Your task to perform on an android device: Open Amazon Image 0: 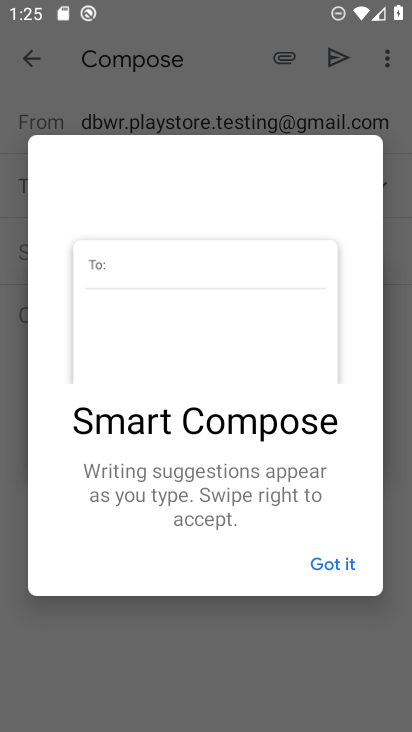
Step 0: press home button
Your task to perform on an android device: Open Amazon Image 1: 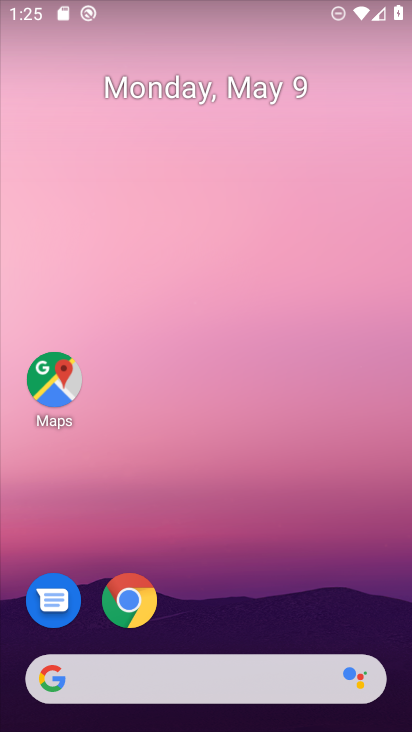
Step 1: drag from (190, 677) to (338, 201)
Your task to perform on an android device: Open Amazon Image 2: 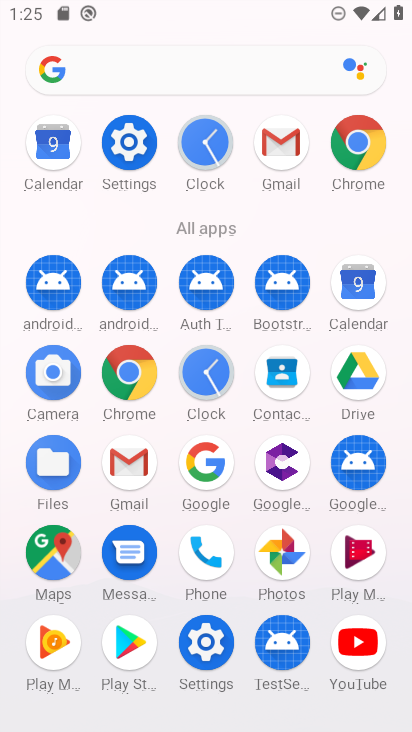
Step 2: click (353, 155)
Your task to perform on an android device: Open Amazon Image 3: 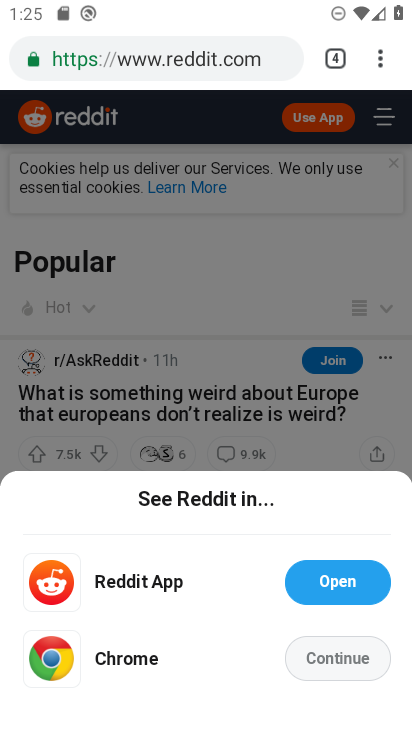
Step 3: drag from (380, 70) to (237, 116)
Your task to perform on an android device: Open Amazon Image 4: 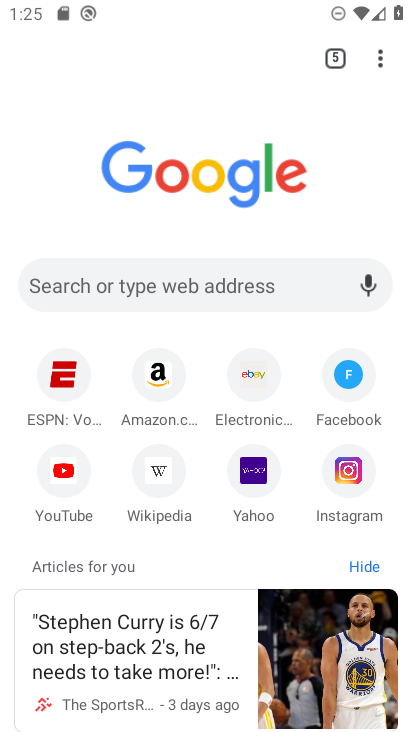
Step 4: click (156, 362)
Your task to perform on an android device: Open Amazon Image 5: 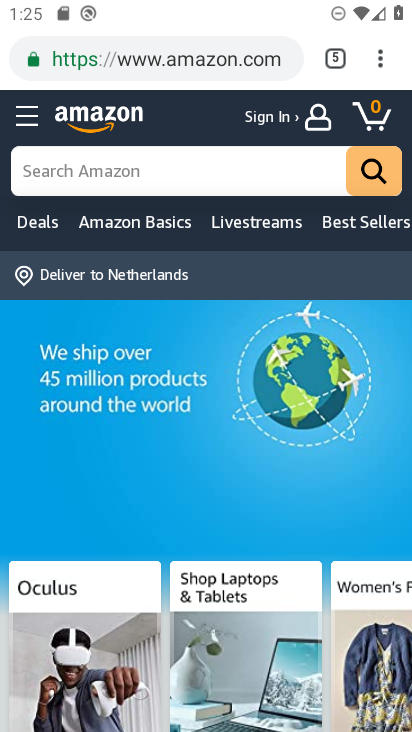
Step 5: task complete